Your task to perform on an android device: turn off data saver in the chrome app Image 0: 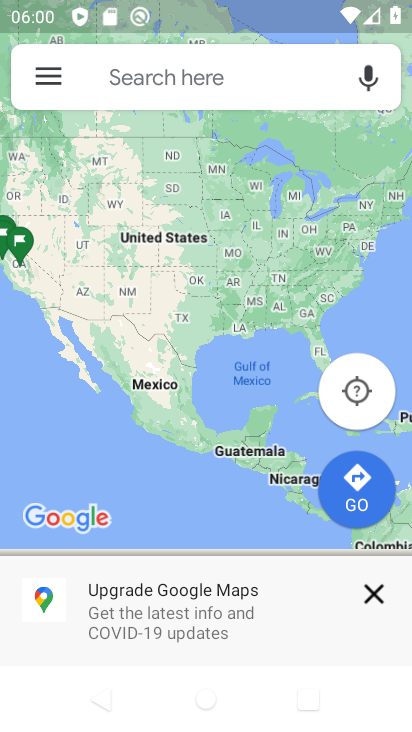
Step 0: press home button
Your task to perform on an android device: turn off data saver in the chrome app Image 1: 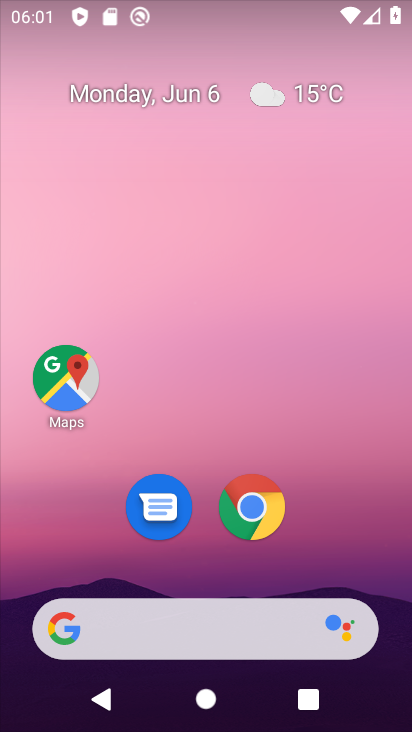
Step 1: drag from (197, 573) to (223, 358)
Your task to perform on an android device: turn off data saver in the chrome app Image 2: 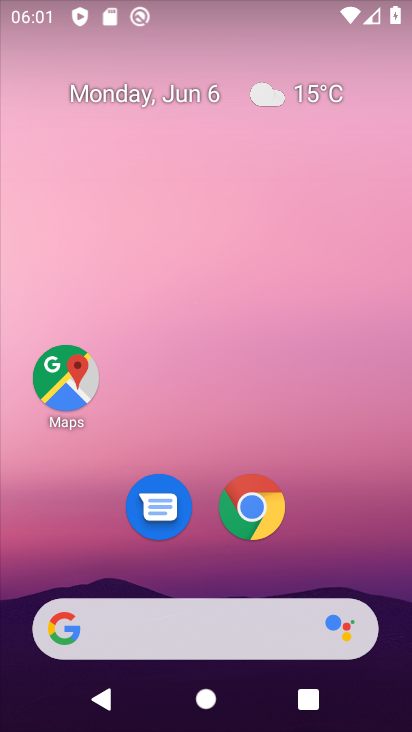
Step 2: drag from (200, 491) to (218, 421)
Your task to perform on an android device: turn off data saver in the chrome app Image 3: 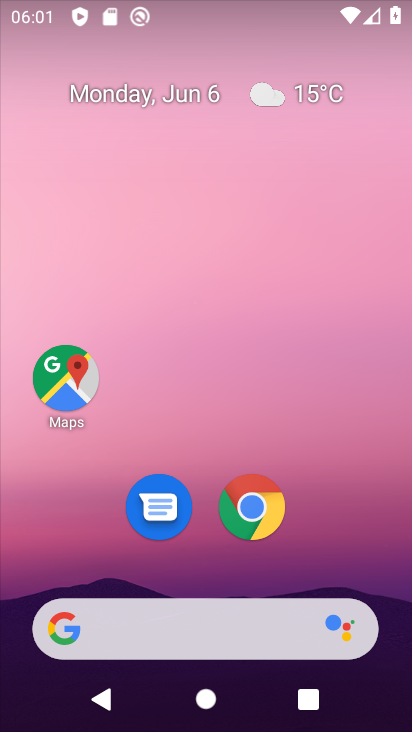
Step 3: click (241, 528)
Your task to perform on an android device: turn off data saver in the chrome app Image 4: 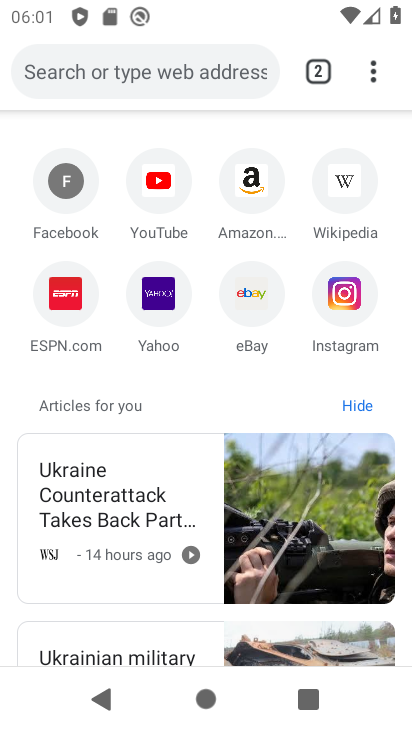
Step 4: click (367, 78)
Your task to perform on an android device: turn off data saver in the chrome app Image 5: 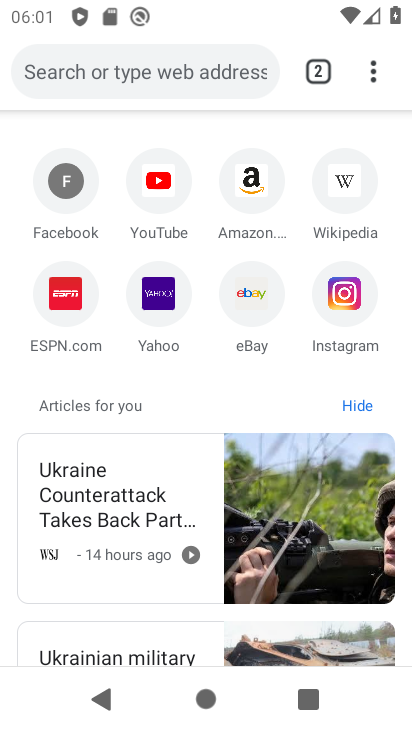
Step 5: click (380, 71)
Your task to perform on an android device: turn off data saver in the chrome app Image 6: 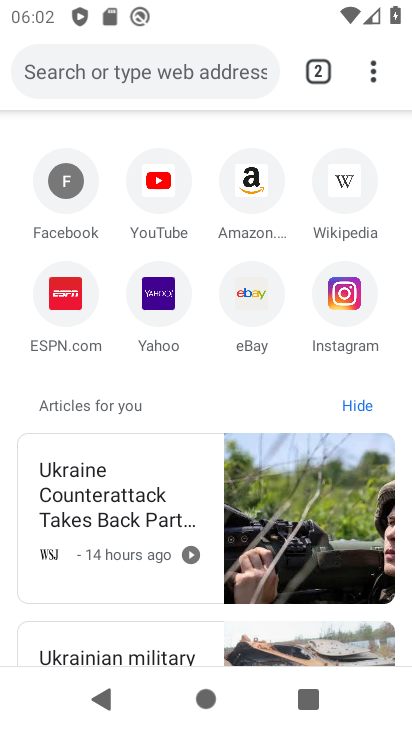
Step 6: click (378, 76)
Your task to perform on an android device: turn off data saver in the chrome app Image 7: 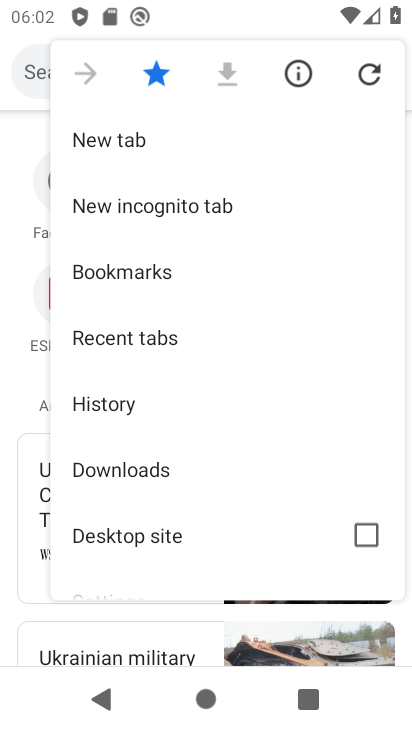
Step 7: drag from (155, 477) to (163, 369)
Your task to perform on an android device: turn off data saver in the chrome app Image 8: 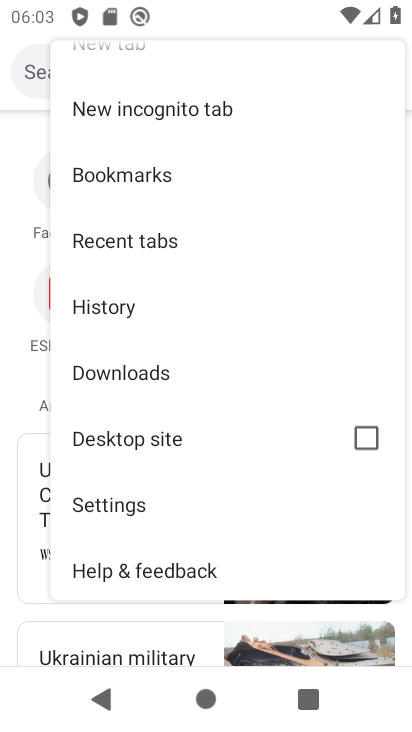
Step 8: click (120, 511)
Your task to perform on an android device: turn off data saver in the chrome app Image 9: 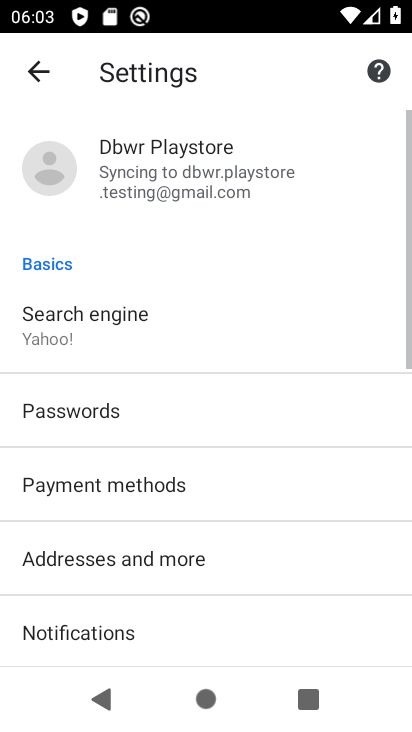
Step 9: drag from (144, 604) to (178, 441)
Your task to perform on an android device: turn off data saver in the chrome app Image 10: 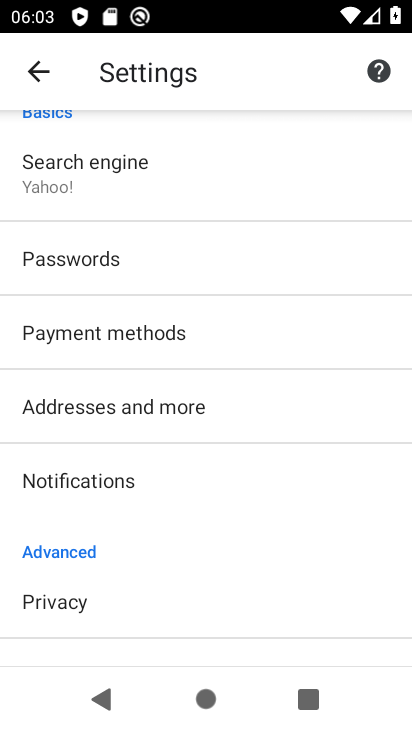
Step 10: drag from (105, 568) to (124, 360)
Your task to perform on an android device: turn off data saver in the chrome app Image 11: 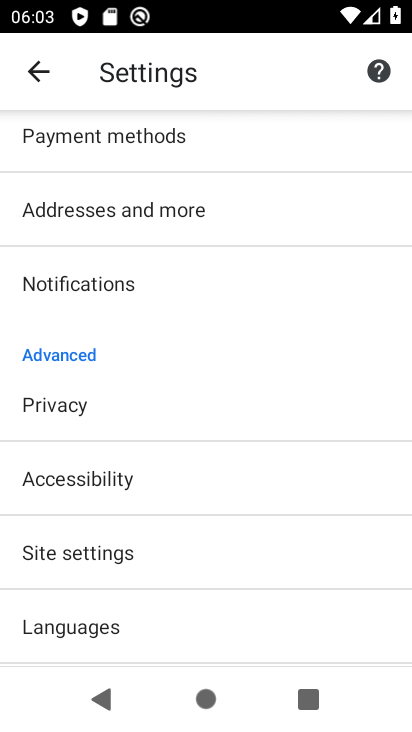
Step 11: drag from (107, 606) to (127, 462)
Your task to perform on an android device: turn off data saver in the chrome app Image 12: 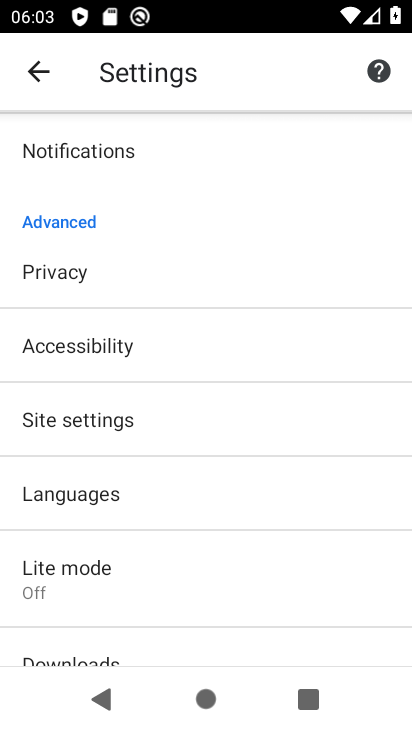
Step 12: click (80, 588)
Your task to perform on an android device: turn off data saver in the chrome app Image 13: 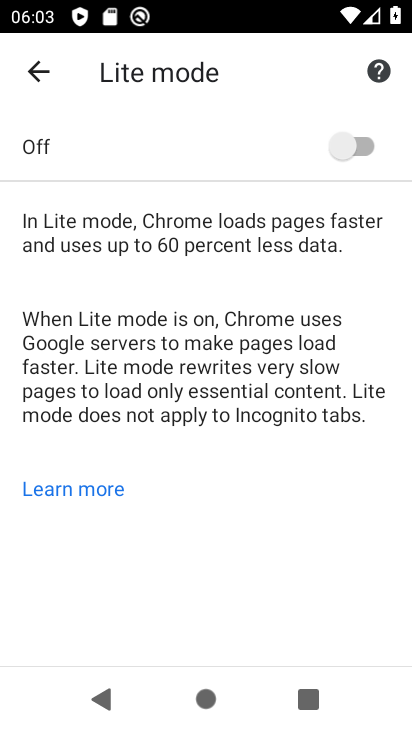
Step 13: task complete